Your task to perform on an android device: find photos in the google photos app Image 0: 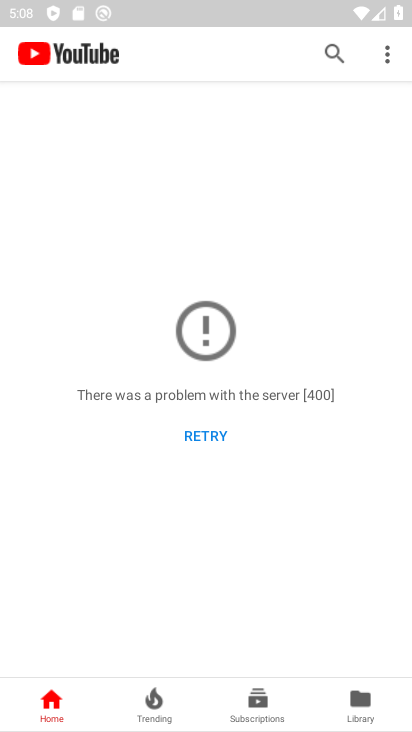
Step 0: press home button
Your task to perform on an android device: find photos in the google photos app Image 1: 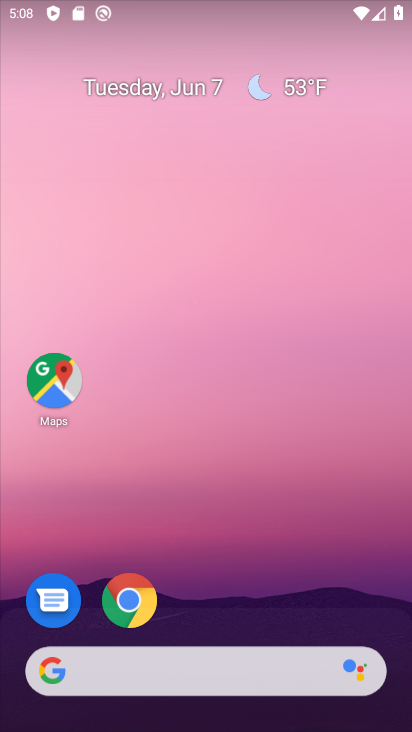
Step 1: drag from (201, 492) to (237, 9)
Your task to perform on an android device: find photos in the google photos app Image 2: 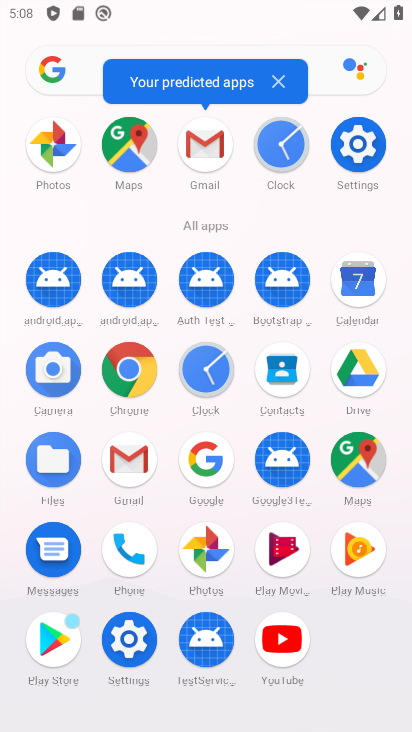
Step 2: click (209, 554)
Your task to perform on an android device: find photos in the google photos app Image 3: 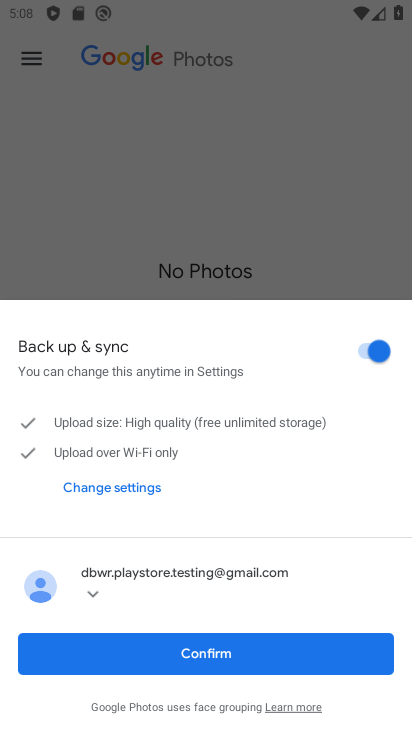
Step 3: click (194, 636)
Your task to perform on an android device: find photos in the google photos app Image 4: 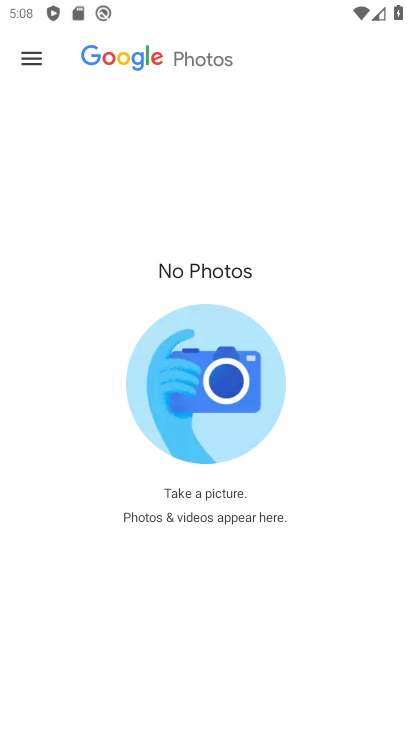
Step 4: task complete